Your task to perform on an android device: set the stopwatch Image 0: 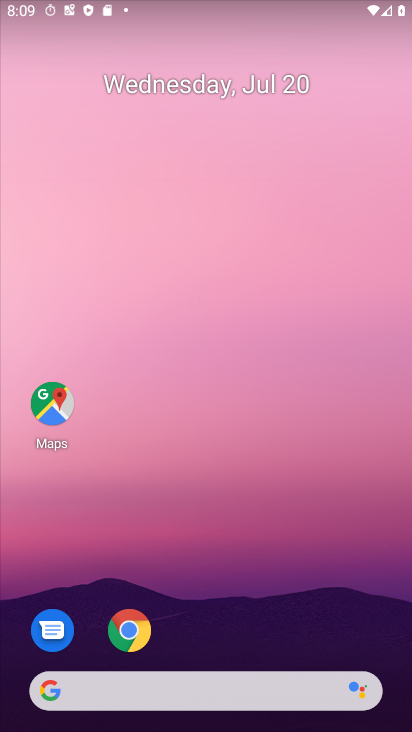
Step 0: press home button
Your task to perform on an android device: set the stopwatch Image 1: 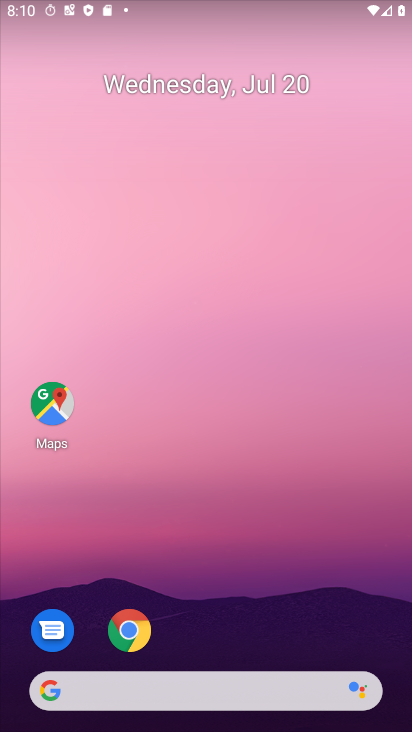
Step 1: drag from (250, 502) to (262, 295)
Your task to perform on an android device: set the stopwatch Image 2: 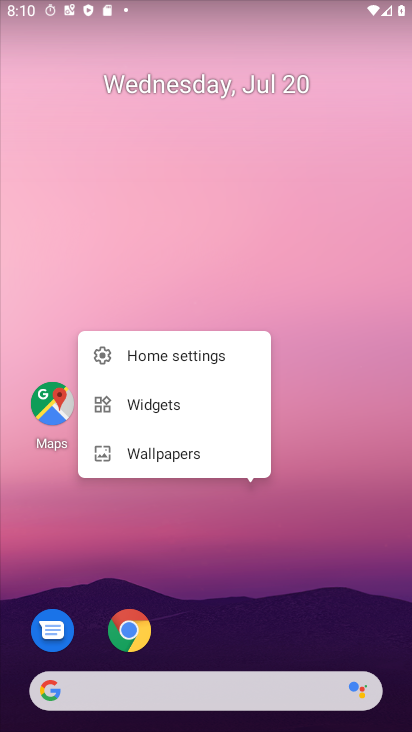
Step 2: click (326, 448)
Your task to perform on an android device: set the stopwatch Image 3: 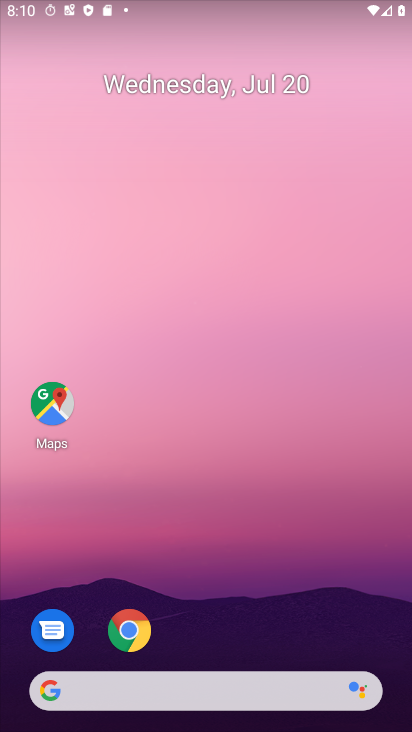
Step 3: drag from (261, 678) to (326, 251)
Your task to perform on an android device: set the stopwatch Image 4: 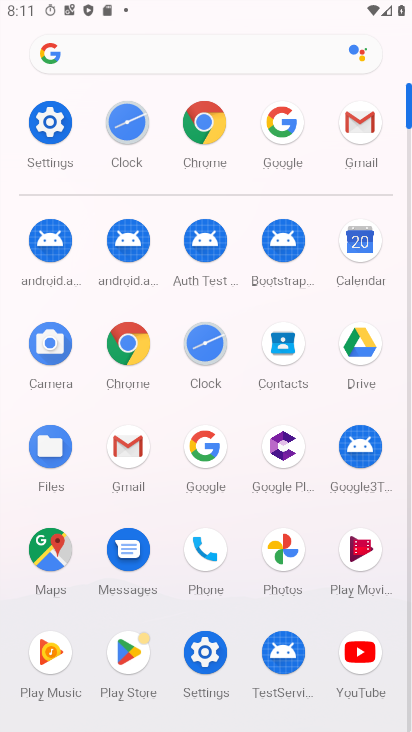
Step 4: click (206, 347)
Your task to perform on an android device: set the stopwatch Image 5: 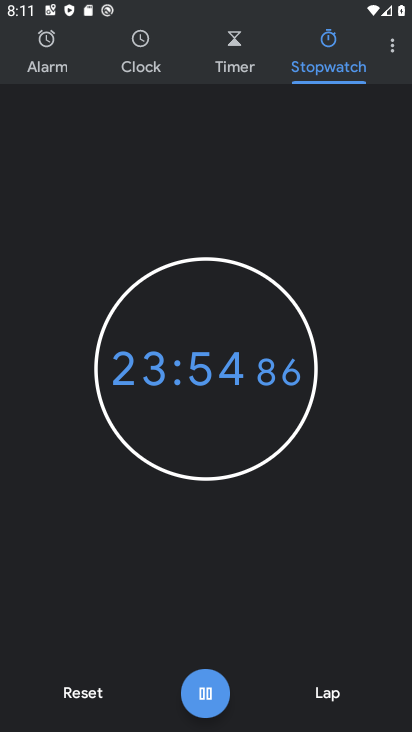
Step 5: task complete